Your task to perform on an android device: check data usage Image 0: 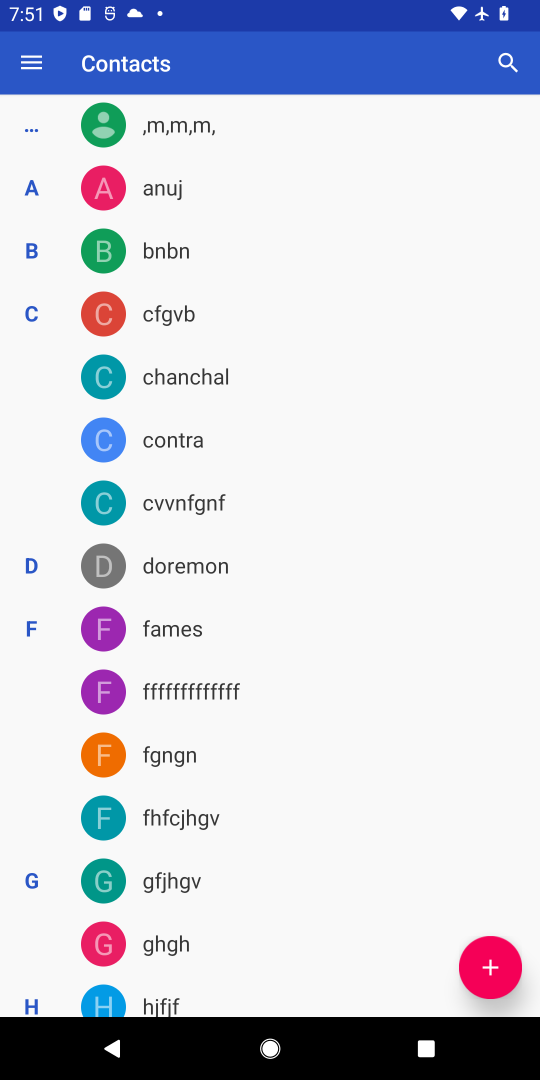
Step 0: press home button
Your task to perform on an android device: check data usage Image 1: 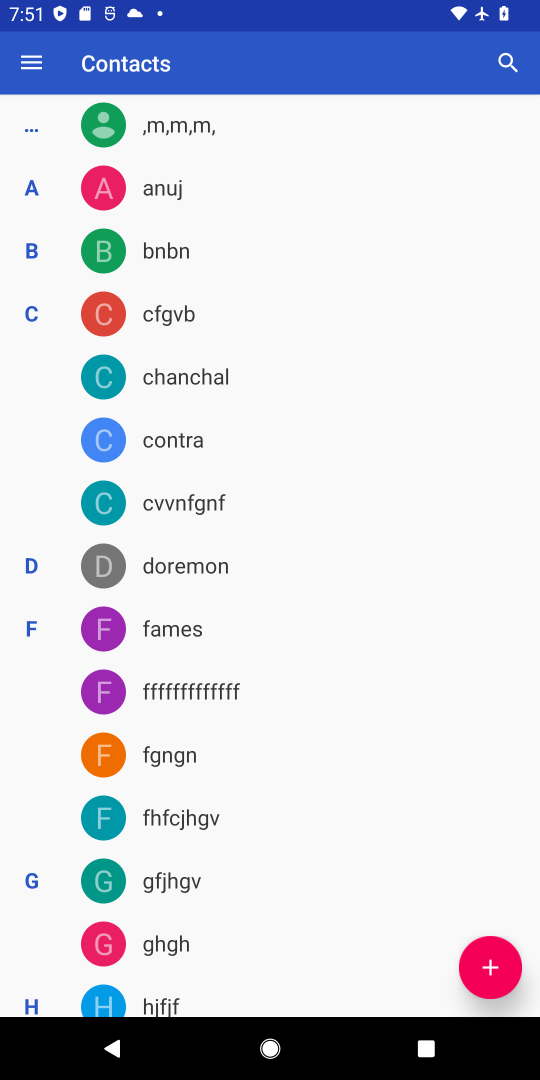
Step 1: press home button
Your task to perform on an android device: check data usage Image 2: 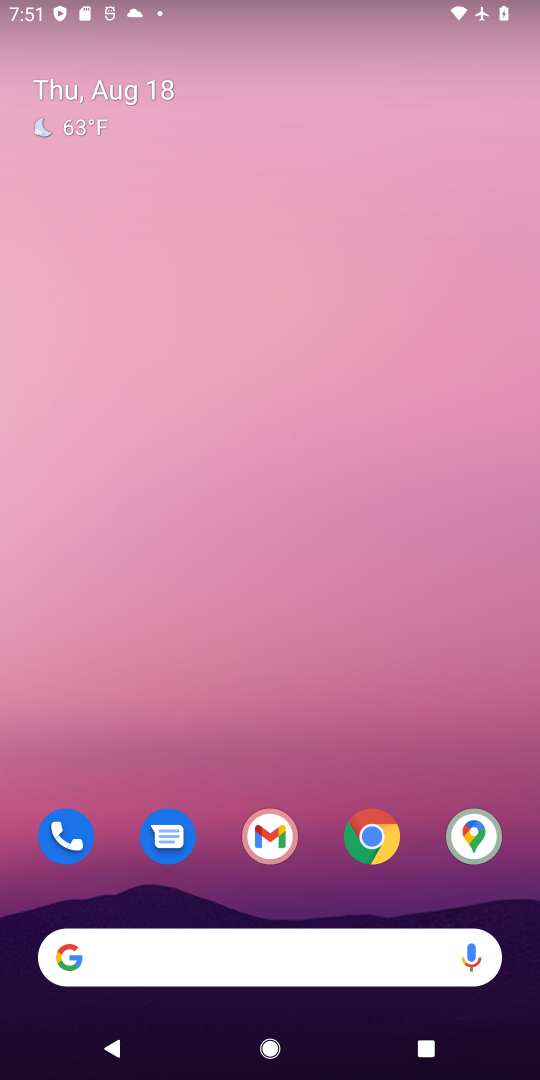
Step 2: drag from (296, 762) to (348, 115)
Your task to perform on an android device: check data usage Image 3: 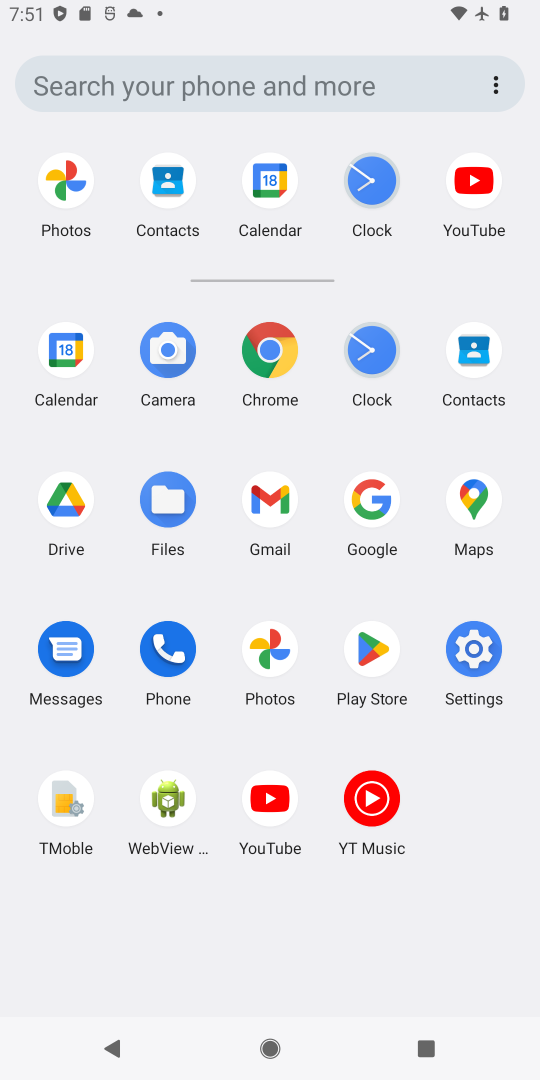
Step 3: click (485, 656)
Your task to perform on an android device: check data usage Image 4: 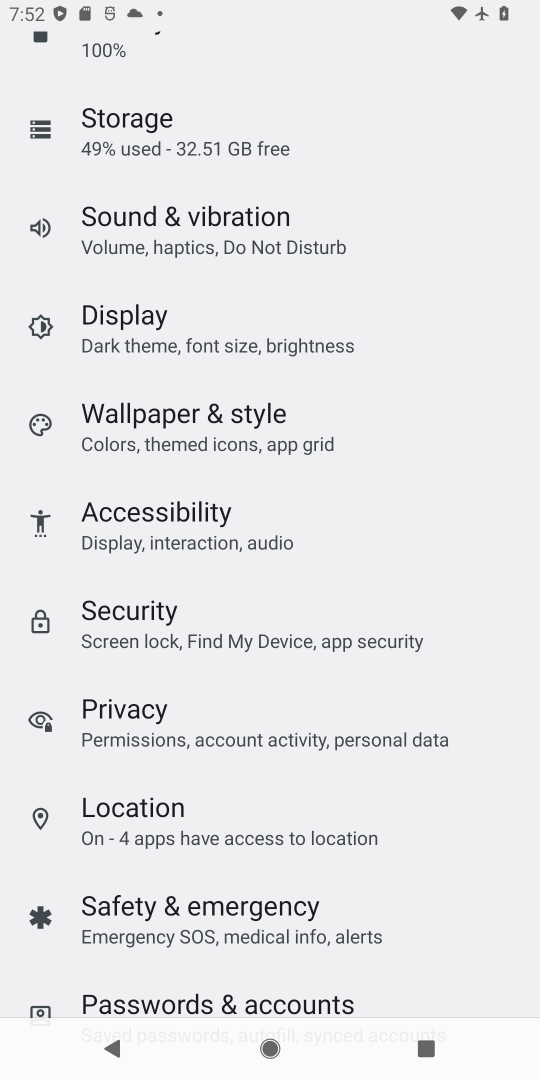
Step 4: drag from (228, 185) to (248, 841)
Your task to perform on an android device: check data usage Image 5: 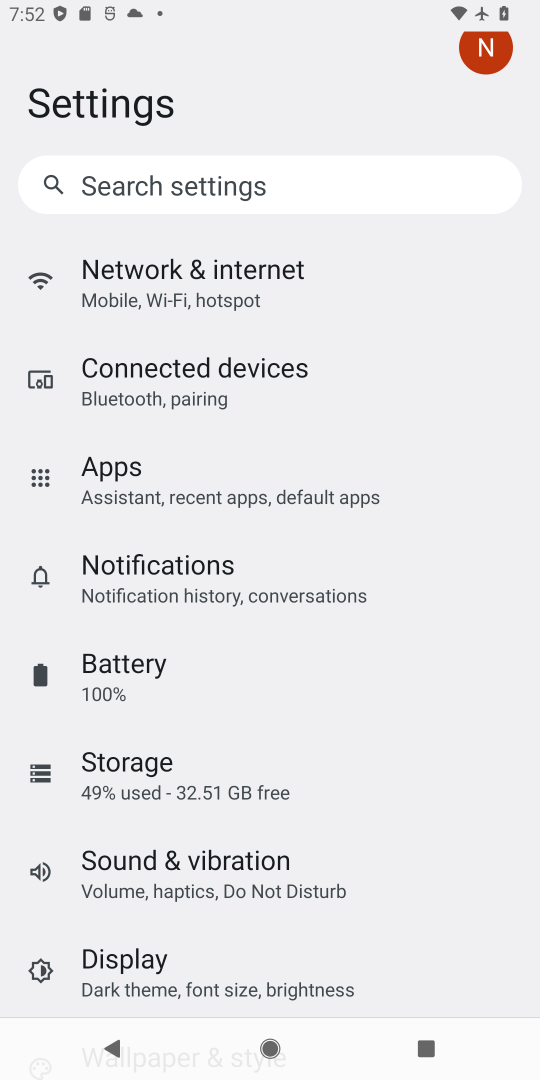
Step 5: click (233, 288)
Your task to perform on an android device: check data usage Image 6: 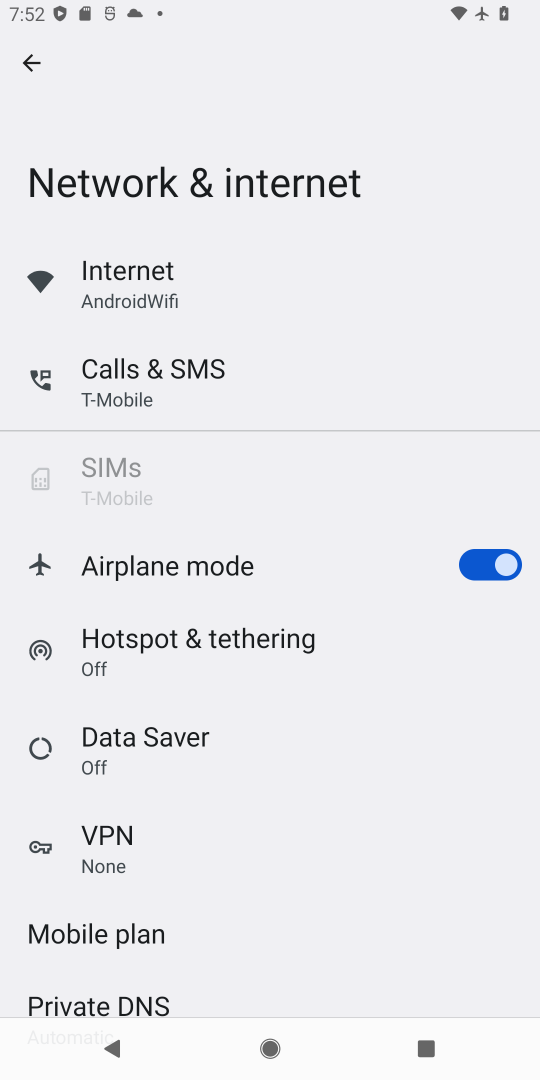
Step 6: click (195, 274)
Your task to perform on an android device: check data usage Image 7: 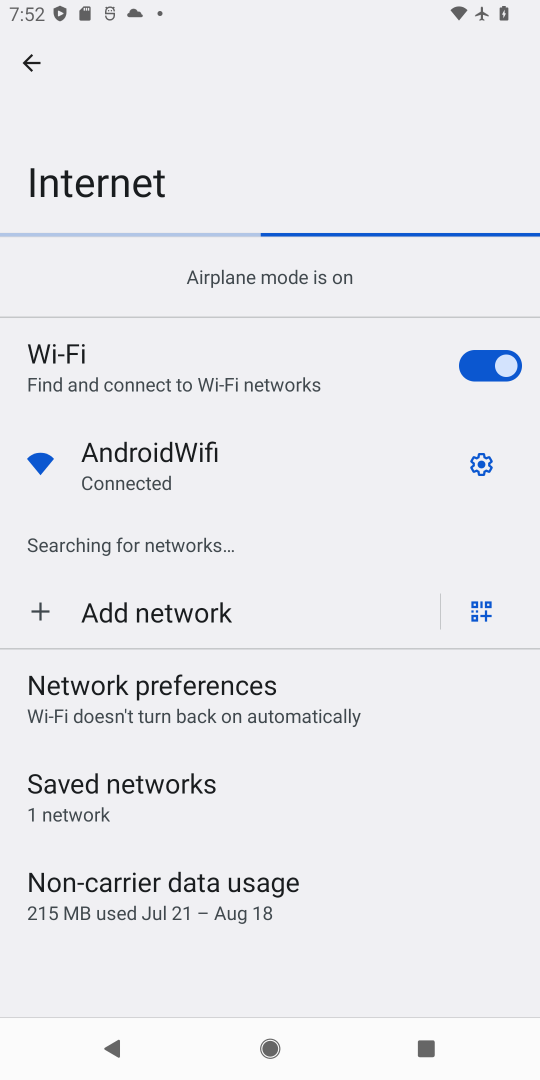
Step 7: click (117, 933)
Your task to perform on an android device: check data usage Image 8: 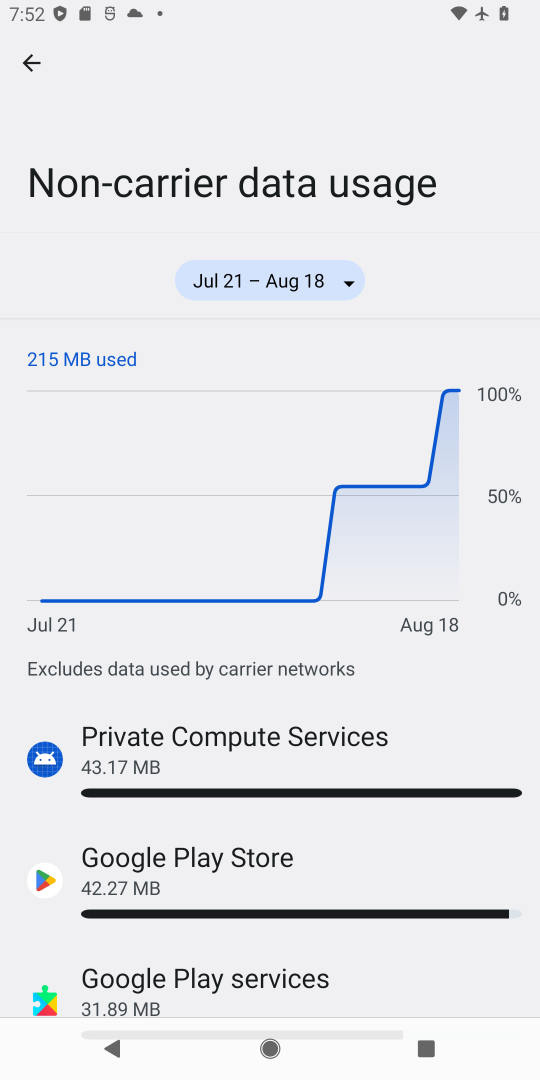
Step 8: task complete